Your task to perform on an android device: Do I have any events today? Image 0: 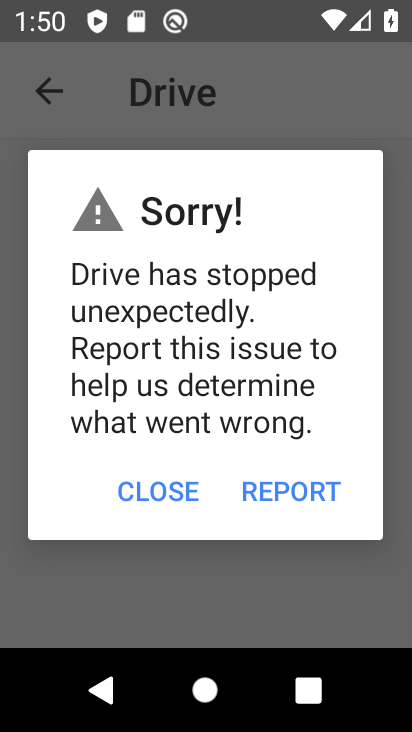
Step 0: press home button
Your task to perform on an android device: Do I have any events today? Image 1: 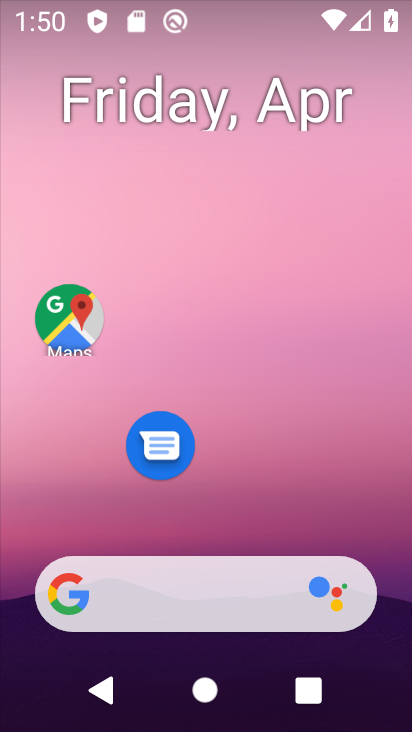
Step 1: drag from (254, 498) to (322, 198)
Your task to perform on an android device: Do I have any events today? Image 2: 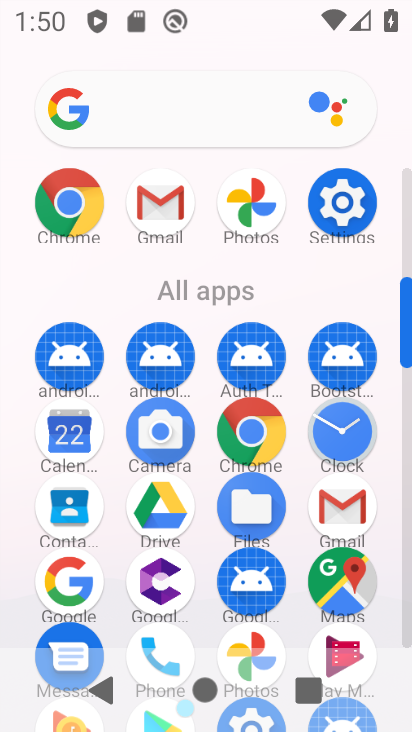
Step 2: click (75, 447)
Your task to perform on an android device: Do I have any events today? Image 3: 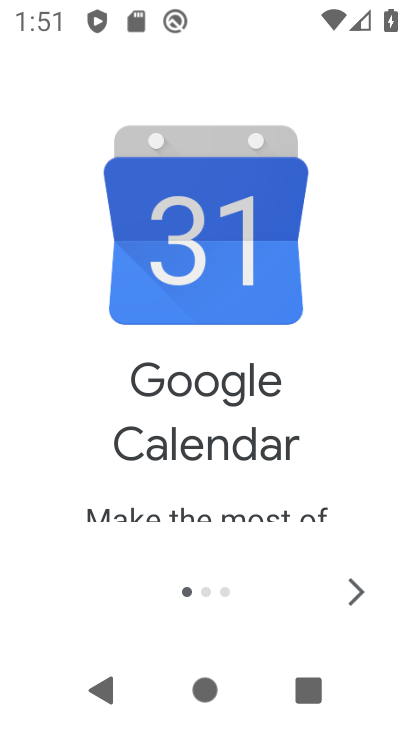
Step 3: click (353, 589)
Your task to perform on an android device: Do I have any events today? Image 4: 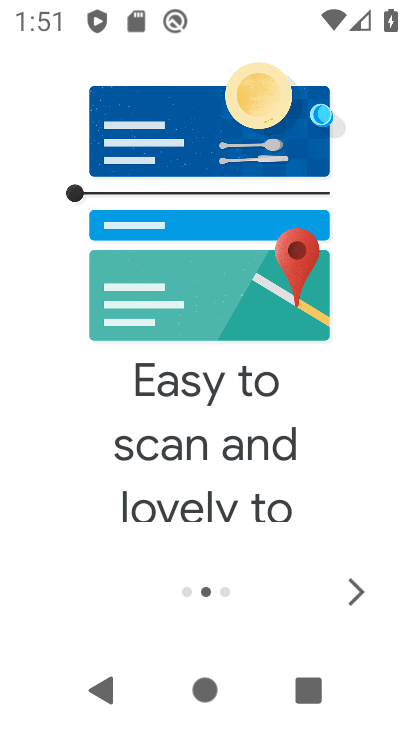
Step 4: click (353, 589)
Your task to perform on an android device: Do I have any events today? Image 5: 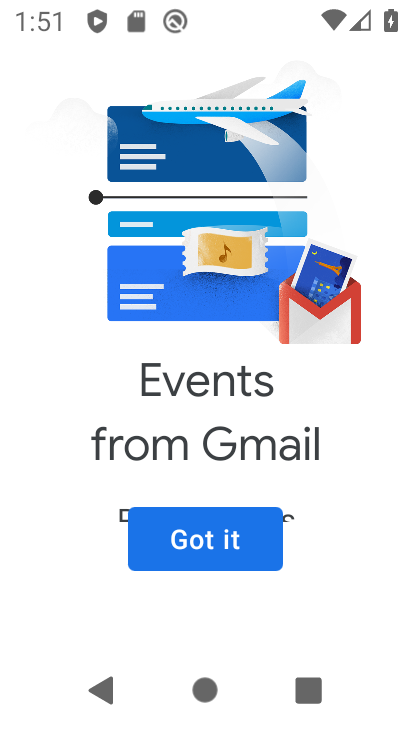
Step 5: click (194, 547)
Your task to perform on an android device: Do I have any events today? Image 6: 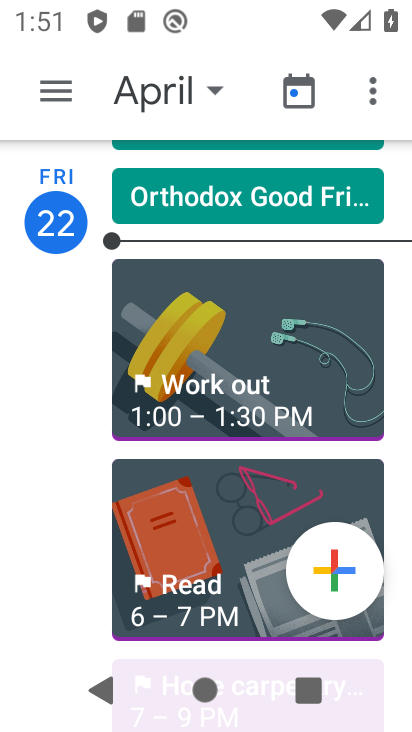
Step 6: click (179, 104)
Your task to perform on an android device: Do I have any events today? Image 7: 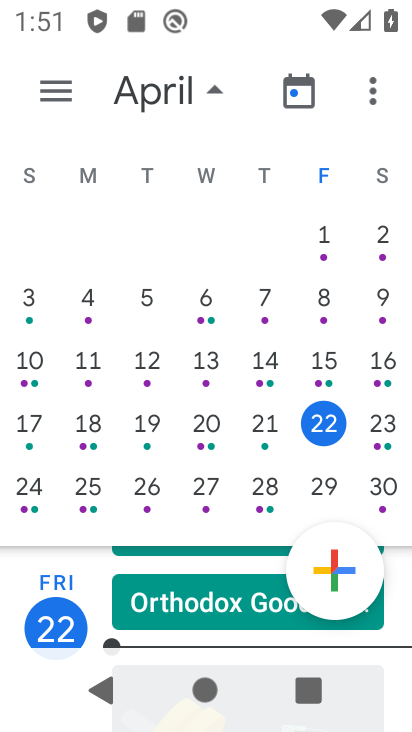
Step 7: task complete